Your task to perform on an android device: When is my next meeting? Image 0: 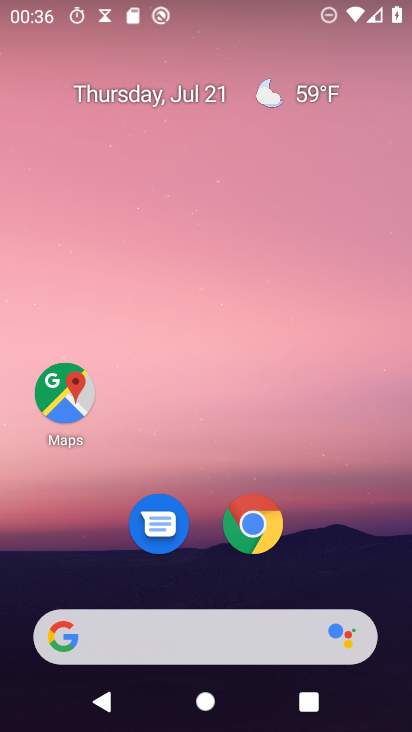
Step 0: press home button
Your task to perform on an android device: When is my next meeting? Image 1: 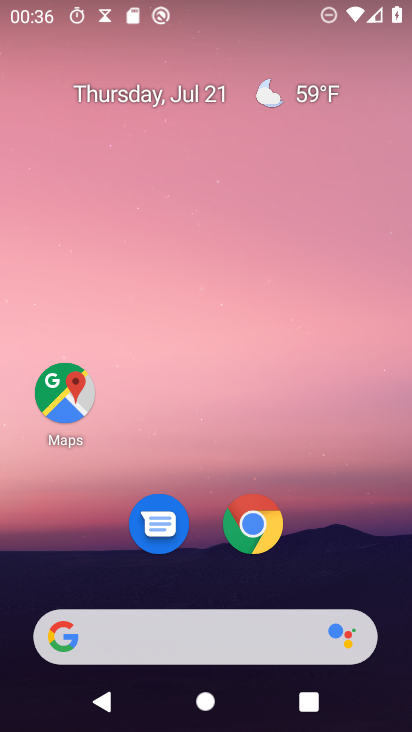
Step 1: drag from (186, 644) to (203, 71)
Your task to perform on an android device: When is my next meeting? Image 2: 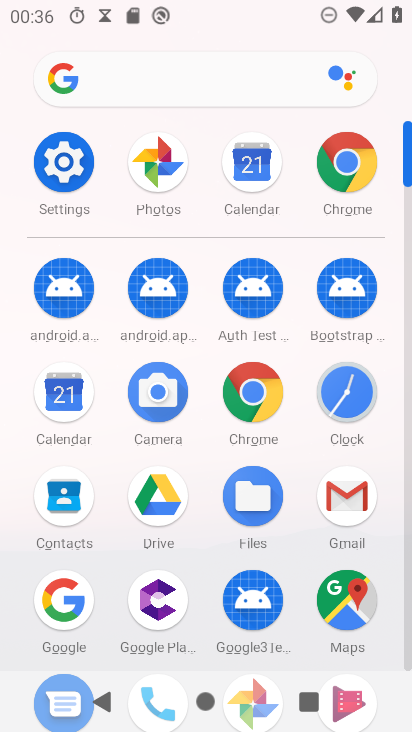
Step 2: click (251, 174)
Your task to perform on an android device: When is my next meeting? Image 3: 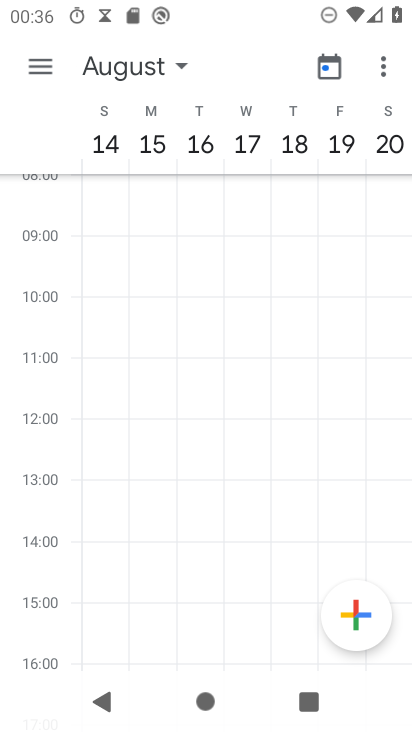
Step 3: click (110, 69)
Your task to perform on an android device: When is my next meeting? Image 4: 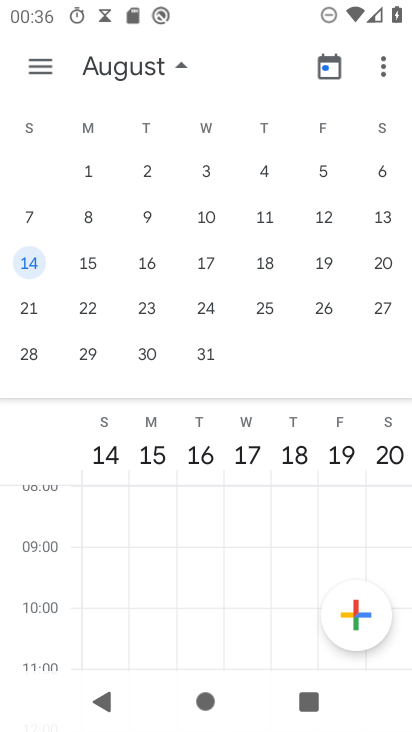
Step 4: click (403, 205)
Your task to perform on an android device: When is my next meeting? Image 5: 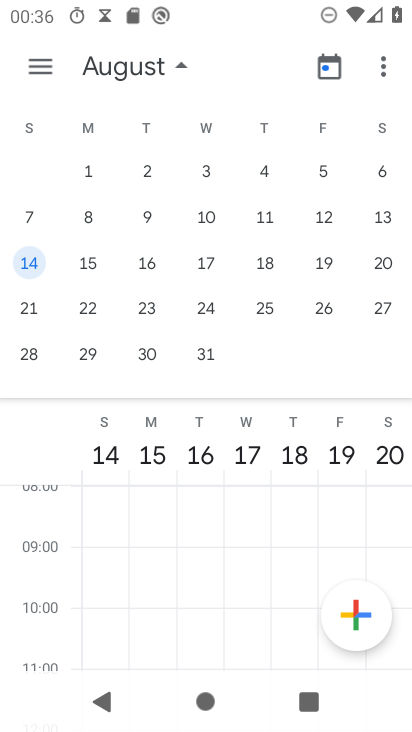
Step 5: drag from (56, 222) to (409, 275)
Your task to perform on an android device: When is my next meeting? Image 6: 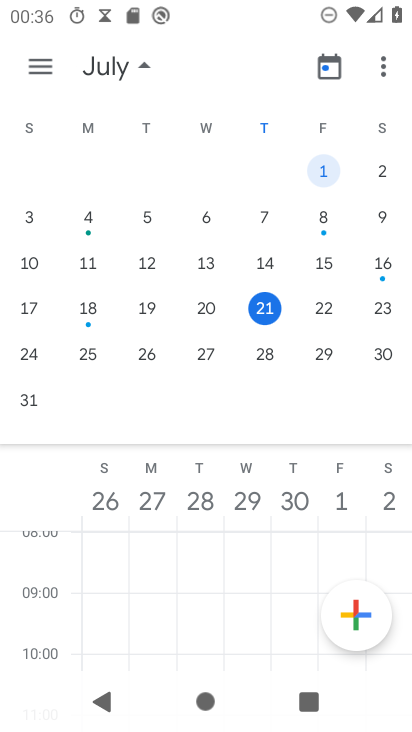
Step 6: click (257, 314)
Your task to perform on an android device: When is my next meeting? Image 7: 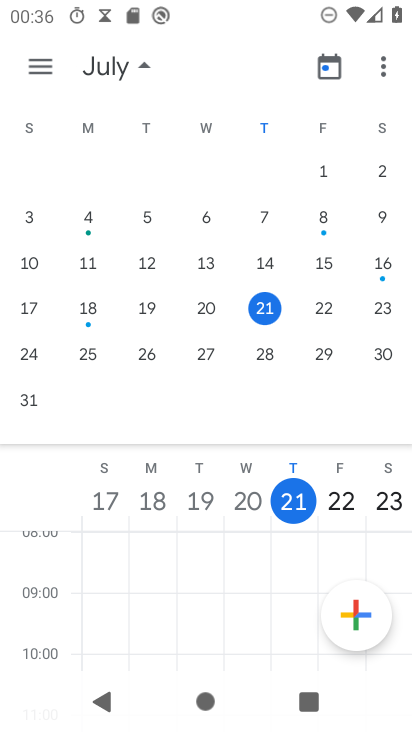
Step 7: click (38, 67)
Your task to perform on an android device: When is my next meeting? Image 8: 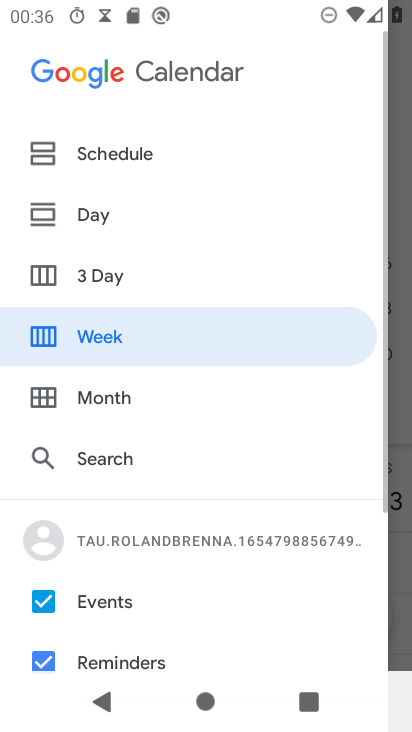
Step 8: click (106, 155)
Your task to perform on an android device: When is my next meeting? Image 9: 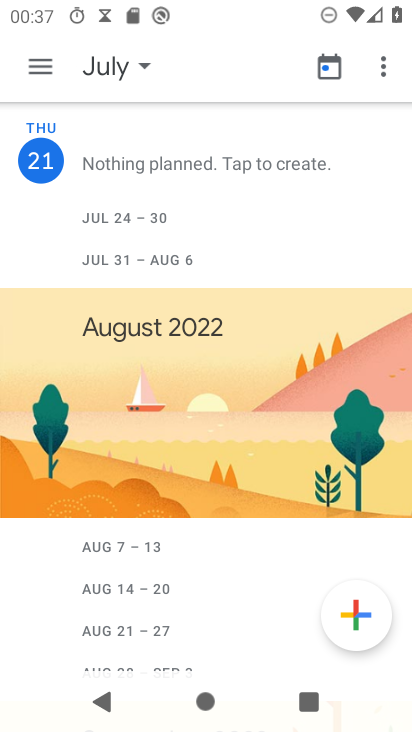
Step 9: task complete